Your task to perform on an android device: turn on bluetooth scan Image 0: 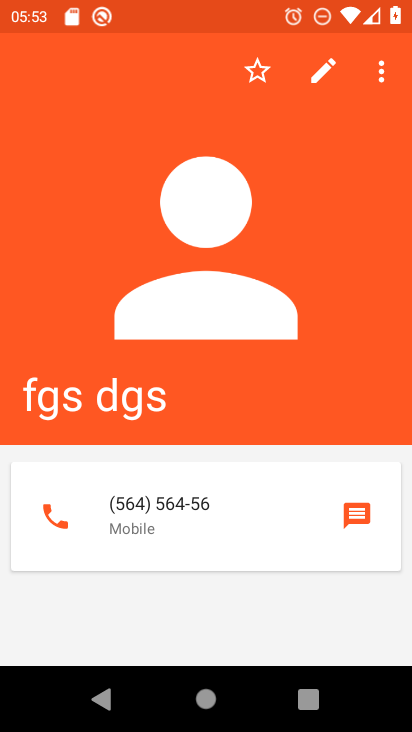
Step 0: press home button
Your task to perform on an android device: turn on bluetooth scan Image 1: 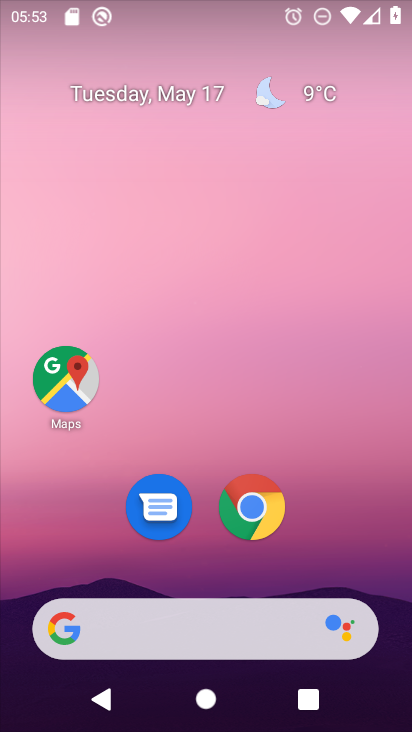
Step 1: drag from (282, 544) to (216, 7)
Your task to perform on an android device: turn on bluetooth scan Image 2: 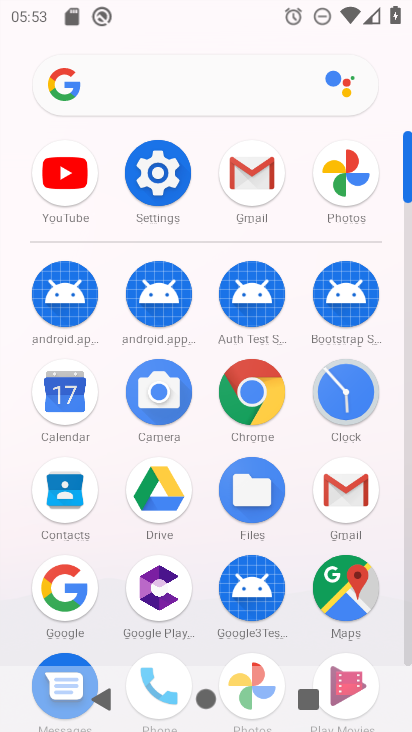
Step 2: click (154, 164)
Your task to perform on an android device: turn on bluetooth scan Image 3: 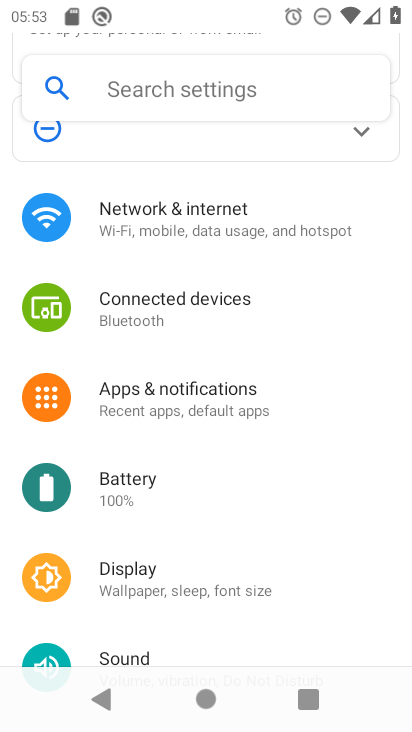
Step 3: drag from (231, 583) to (204, 232)
Your task to perform on an android device: turn on bluetooth scan Image 4: 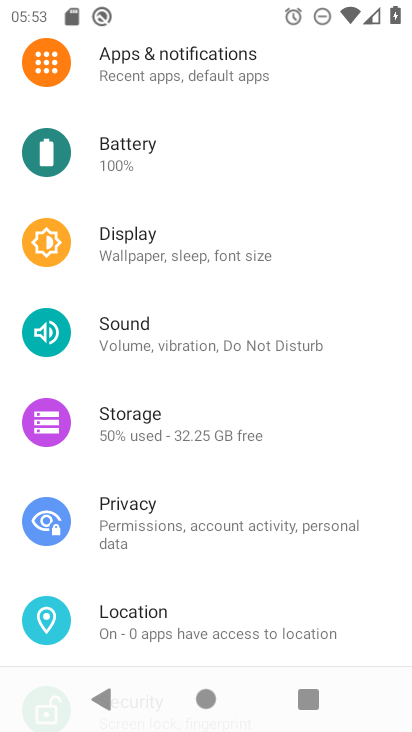
Step 4: click (191, 593)
Your task to perform on an android device: turn on bluetooth scan Image 5: 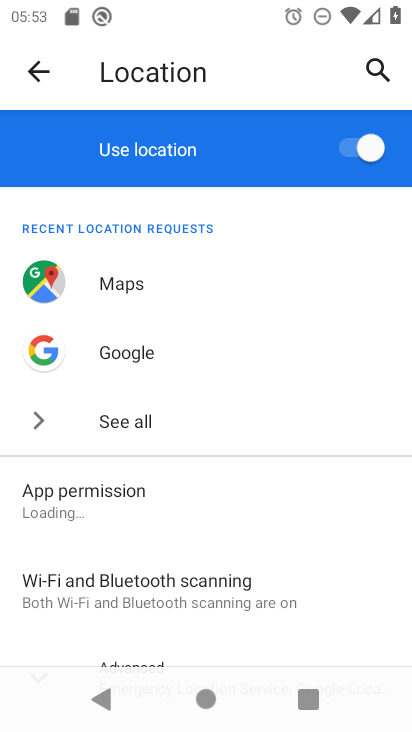
Step 5: click (277, 587)
Your task to perform on an android device: turn on bluetooth scan Image 6: 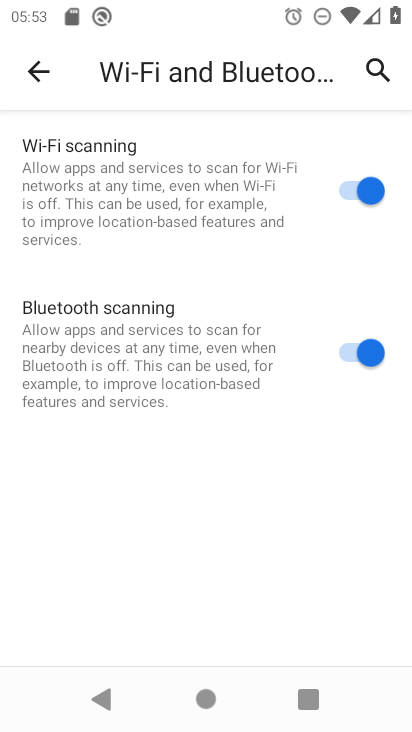
Step 6: task complete